Your task to perform on an android device: see creations saved in the google photos Image 0: 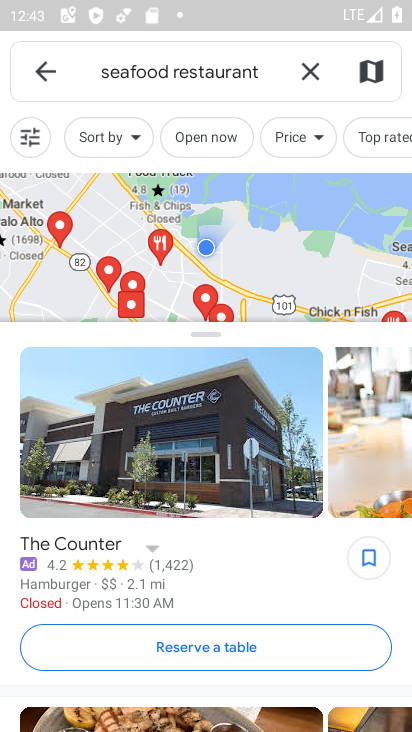
Step 0: press home button
Your task to perform on an android device: see creations saved in the google photos Image 1: 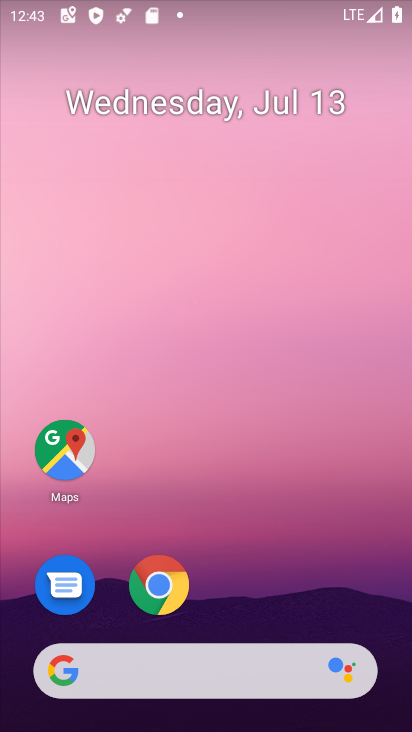
Step 1: click (206, 522)
Your task to perform on an android device: see creations saved in the google photos Image 2: 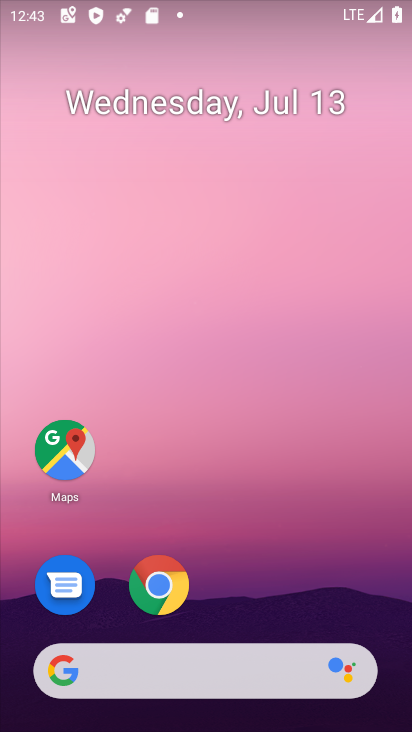
Step 2: click (206, 522)
Your task to perform on an android device: see creations saved in the google photos Image 3: 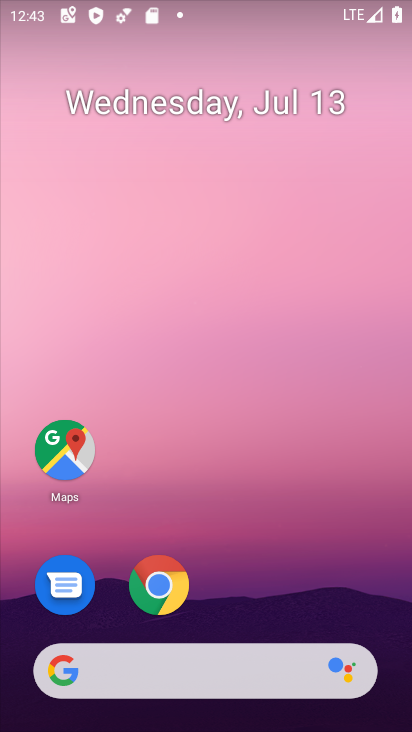
Step 3: drag from (202, 436) to (177, 123)
Your task to perform on an android device: see creations saved in the google photos Image 4: 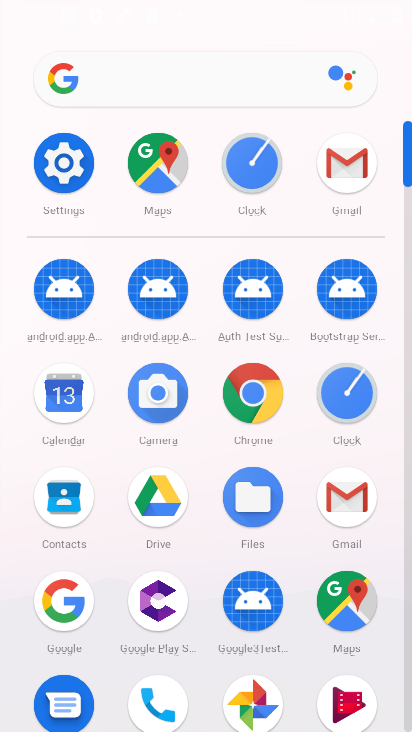
Step 4: drag from (311, 451) to (302, 262)
Your task to perform on an android device: see creations saved in the google photos Image 5: 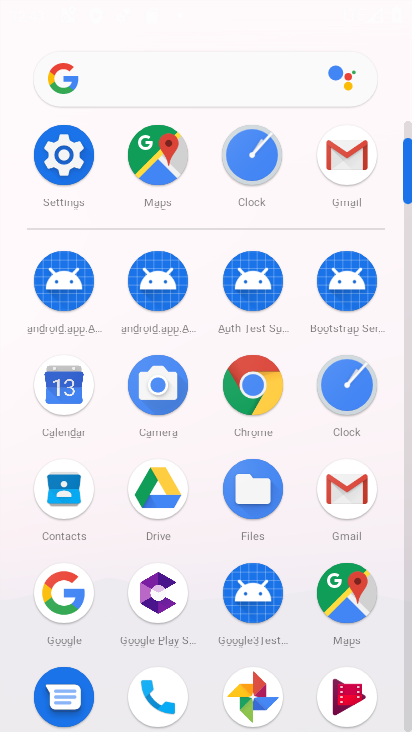
Step 5: click (246, 716)
Your task to perform on an android device: see creations saved in the google photos Image 6: 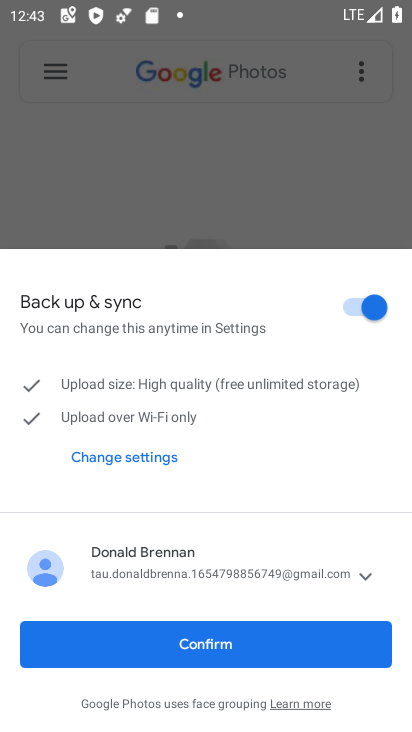
Step 6: click (214, 644)
Your task to perform on an android device: see creations saved in the google photos Image 7: 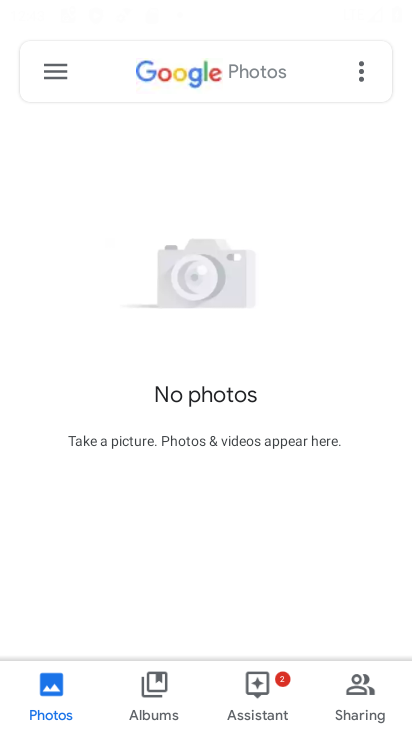
Step 7: click (187, 77)
Your task to perform on an android device: see creations saved in the google photos Image 8: 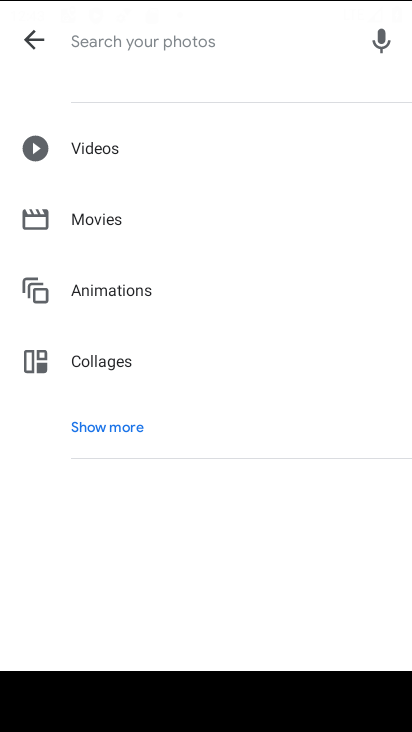
Step 8: click (92, 433)
Your task to perform on an android device: see creations saved in the google photos Image 9: 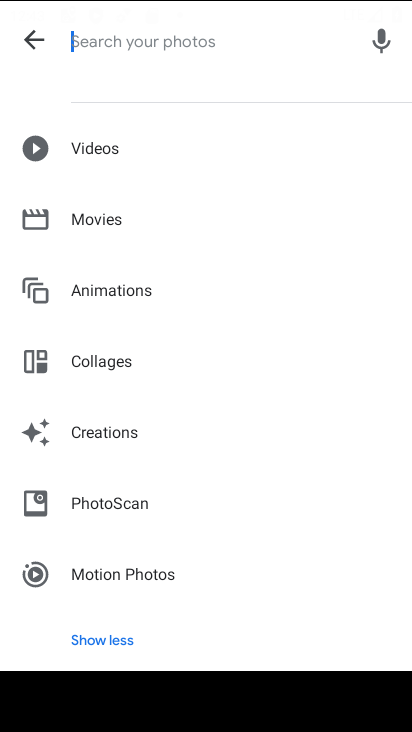
Step 9: click (104, 428)
Your task to perform on an android device: see creations saved in the google photos Image 10: 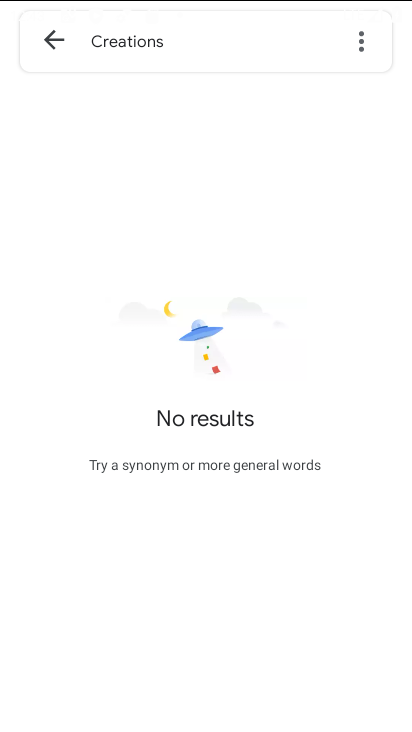
Step 10: task complete